Your task to perform on an android device: toggle notifications settings in the gmail app Image 0: 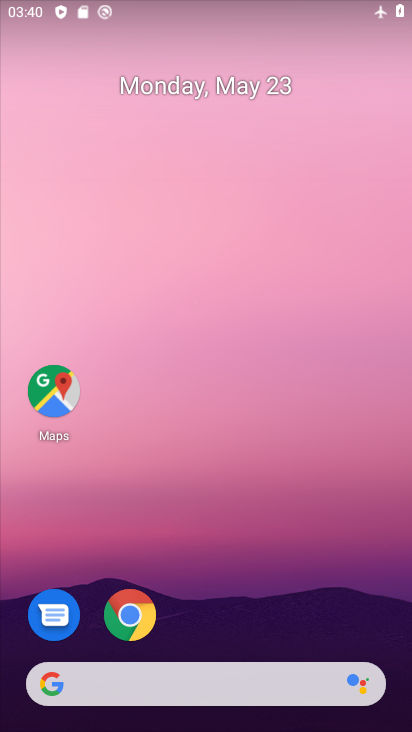
Step 0: drag from (324, 501) to (275, 231)
Your task to perform on an android device: toggle notifications settings in the gmail app Image 1: 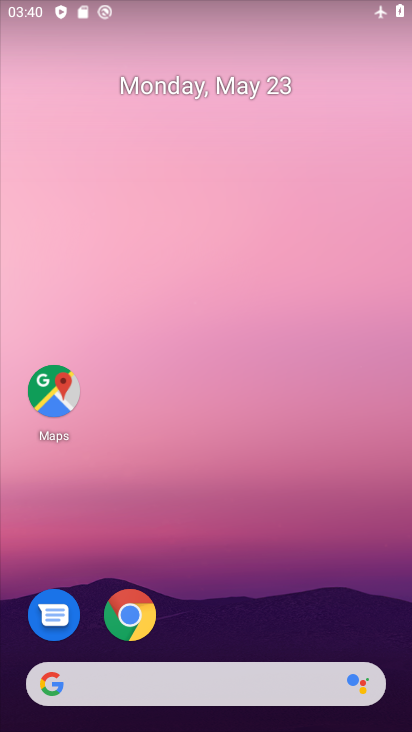
Step 1: drag from (227, 590) to (229, 264)
Your task to perform on an android device: toggle notifications settings in the gmail app Image 2: 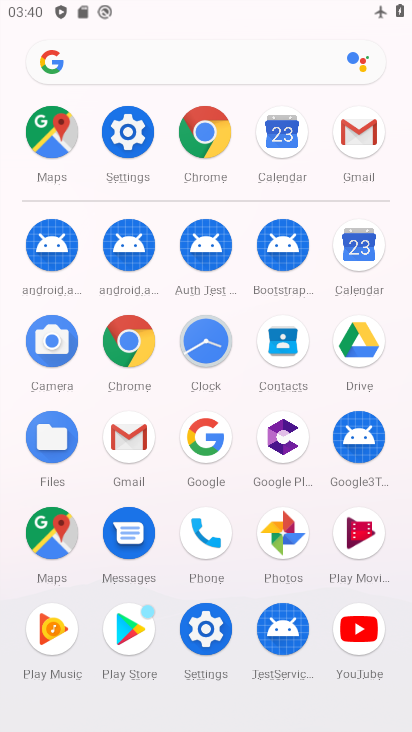
Step 2: click (118, 440)
Your task to perform on an android device: toggle notifications settings in the gmail app Image 3: 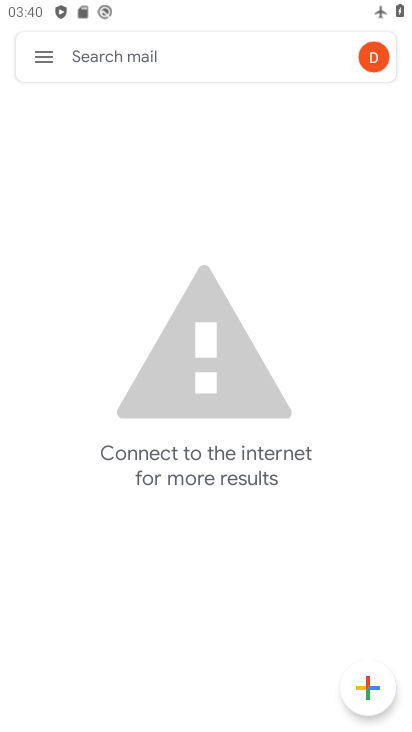
Step 3: click (30, 46)
Your task to perform on an android device: toggle notifications settings in the gmail app Image 4: 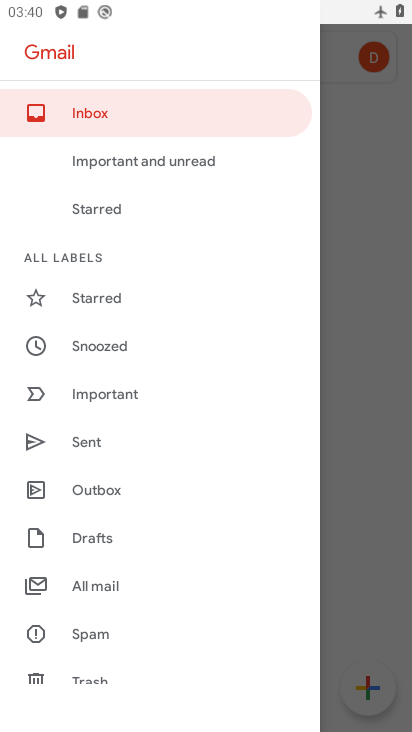
Step 4: drag from (216, 564) to (199, 233)
Your task to perform on an android device: toggle notifications settings in the gmail app Image 5: 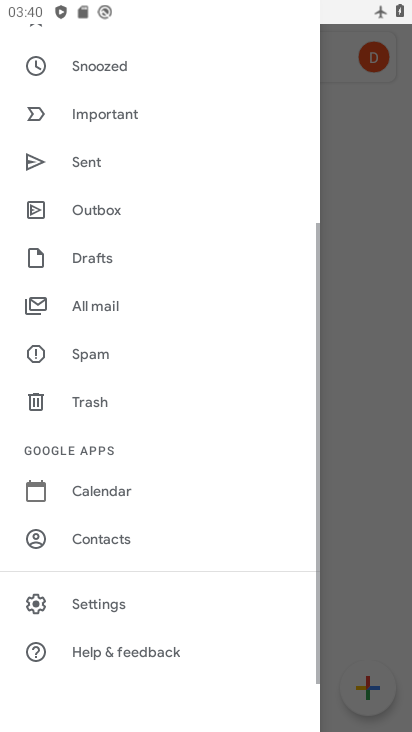
Step 5: click (88, 593)
Your task to perform on an android device: toggle notifications settings in the gmail app Image 6: 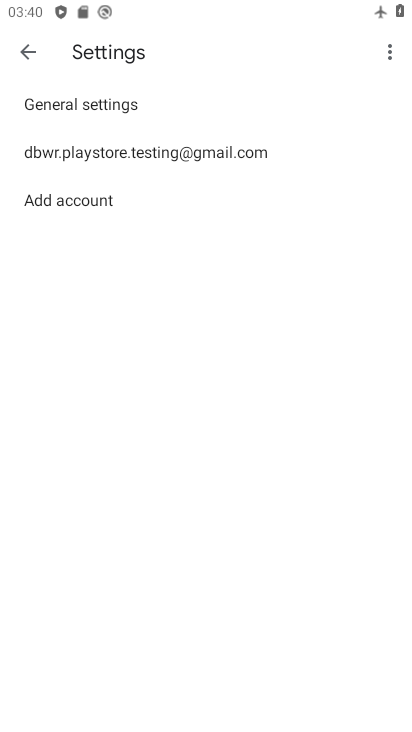
Step 6: click (202, 158)
Your task to perform on an android device: toggle notifications settings in the gmail app Image 7: 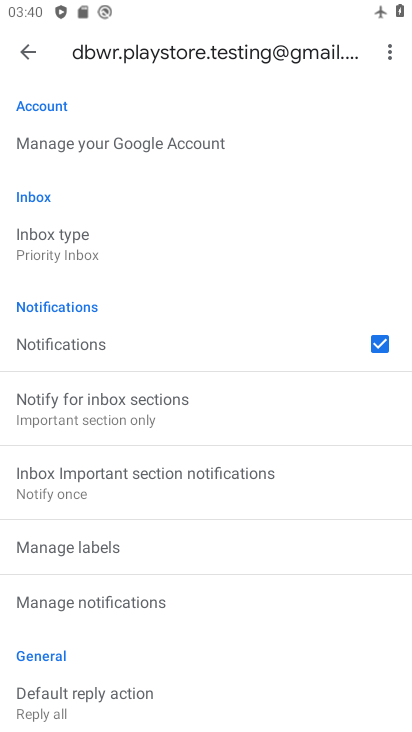
Step 7: click (89, 342)
Your task to perform on an android device: toggle notifications settings in the gmail app Image 8: 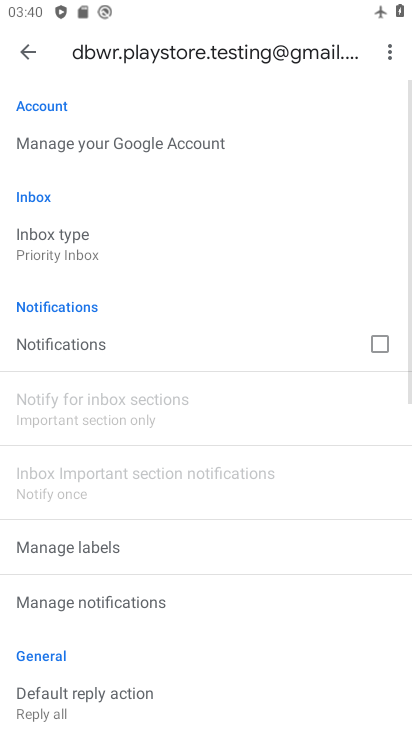
Step 8: task complete